Your task to perform on an android device: Go to Yahoo.com Image 0: 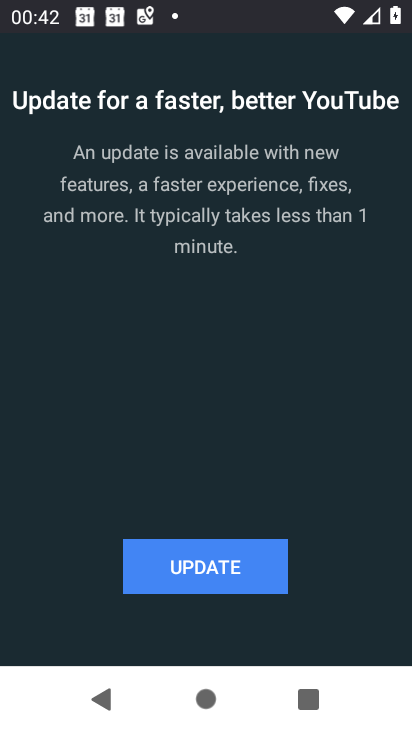
Step 0: press home button
Your task to perform on an android device: Go to Yahoo.com Image 1: 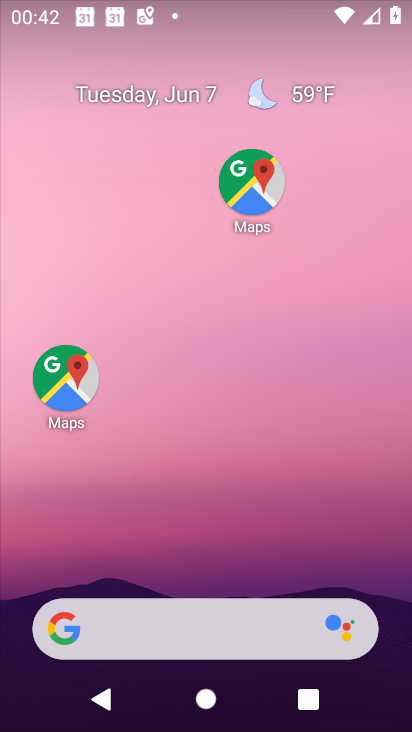
Step 1: drag from (229, 564) to (228, 71)
Your task to perform on an android device: Go to Yahoo.com Image 2: 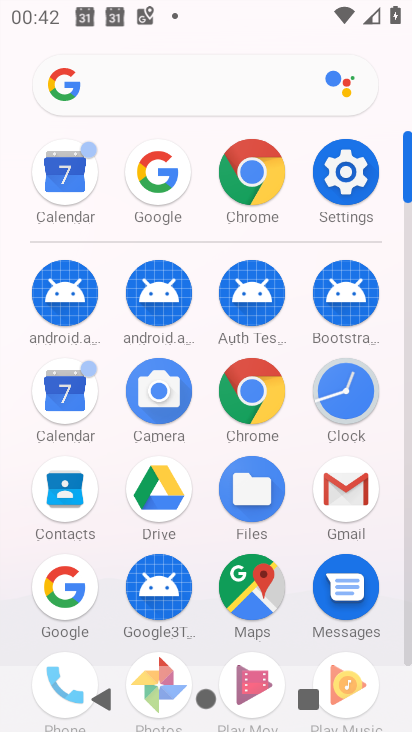
Step 2: click (250, 179)
Your task to perform on an android device: Go to Yahoo.com Image 3: 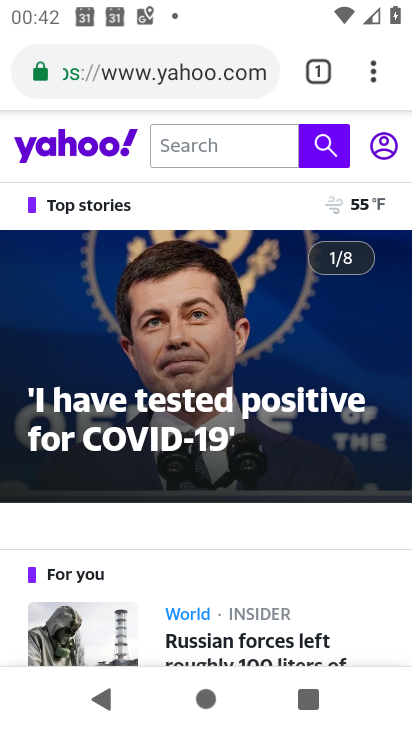
Step 3: task complete